Your task to perform on an android device: Open battery settings Image 0: 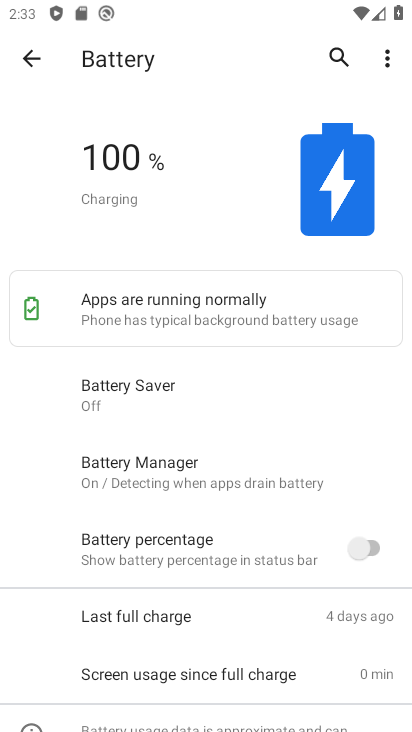
Step 0: press home button
Your task to perform on an android device: Open battery settings Image 1: 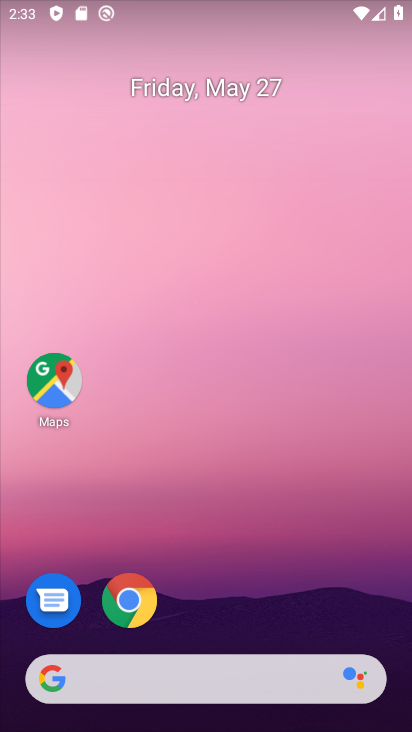
Step 1: drag from (223, 713) to (246, 91)
Your task to perform on an android device: Open battery settings Image 2: 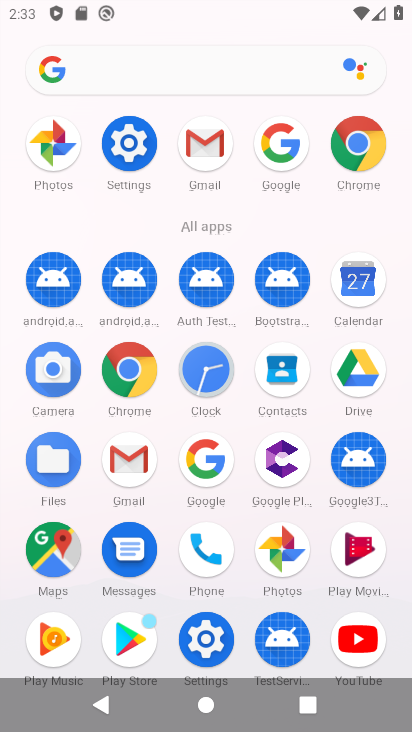
Step 2: click (129, 141)
Your task to perform on an android device: Open battery settings Image 3: 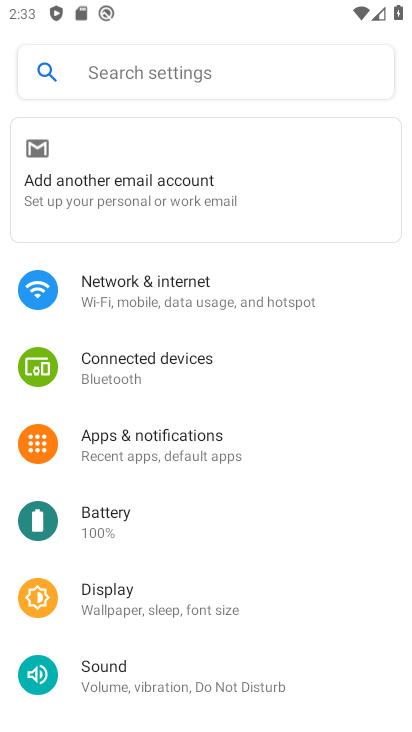
Step 3: drag from (161, 689) to (157, 353)
Your task to perform on an android device: Open battery settings Image 4: 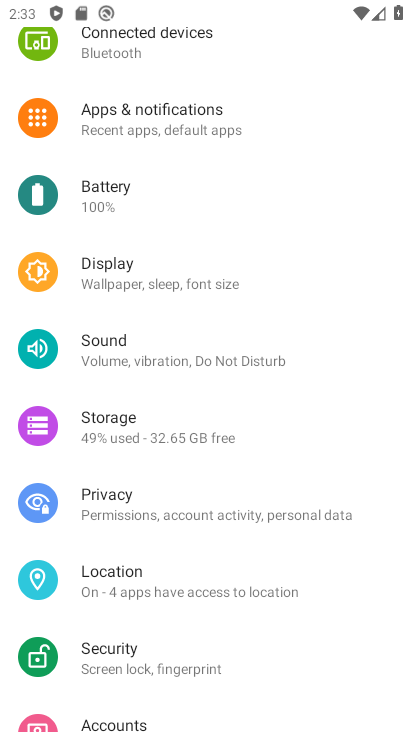
Step 4: click (106, 191)
Your task to perform on an android device: Open battery settings Image 5: 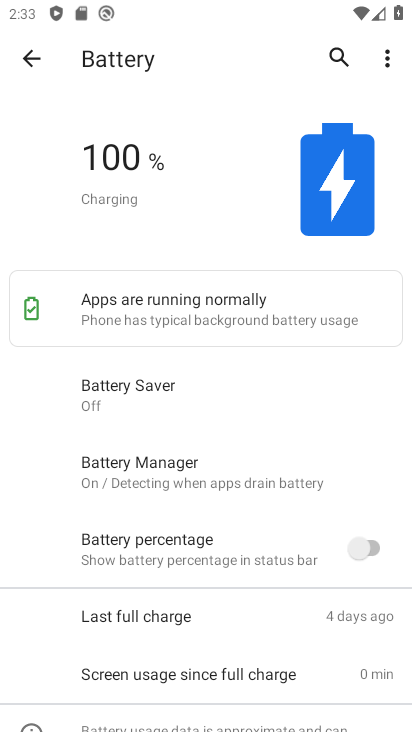
Step 5: task complete